Your task to perform on an android device: install app "McDonald's" Image 0: 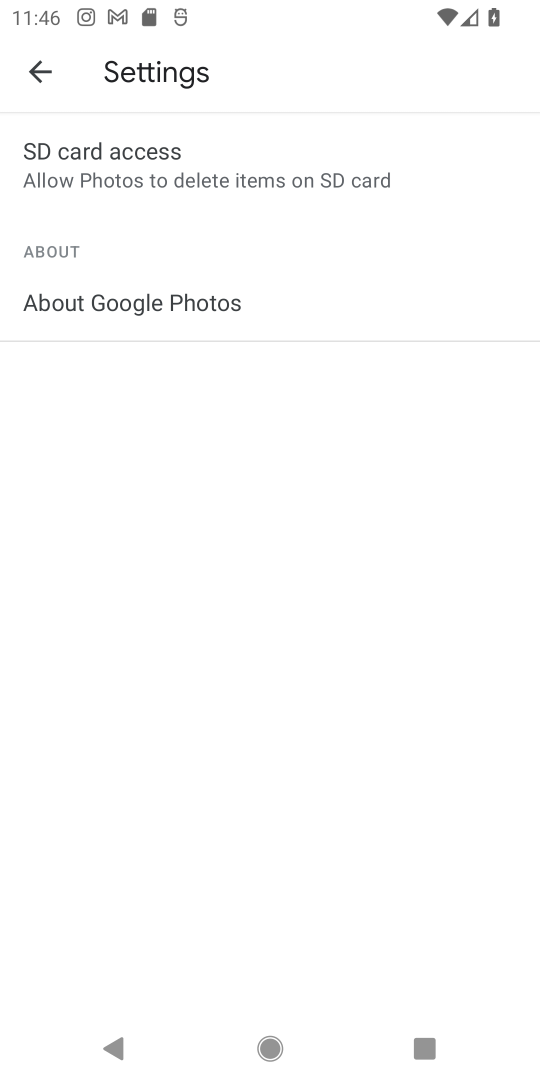
Step 0: press home button
Your task to perform on an android device: install app "McDonald's" Image 1: 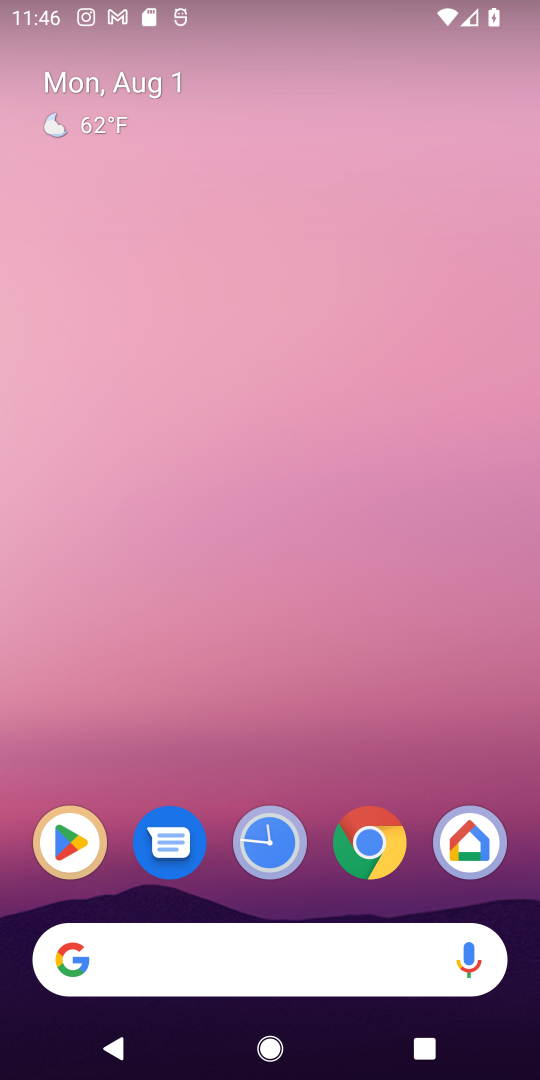
Step 1: click (47, 842)
Your task to perform on an android device: install app "McDonald's" Image 2: 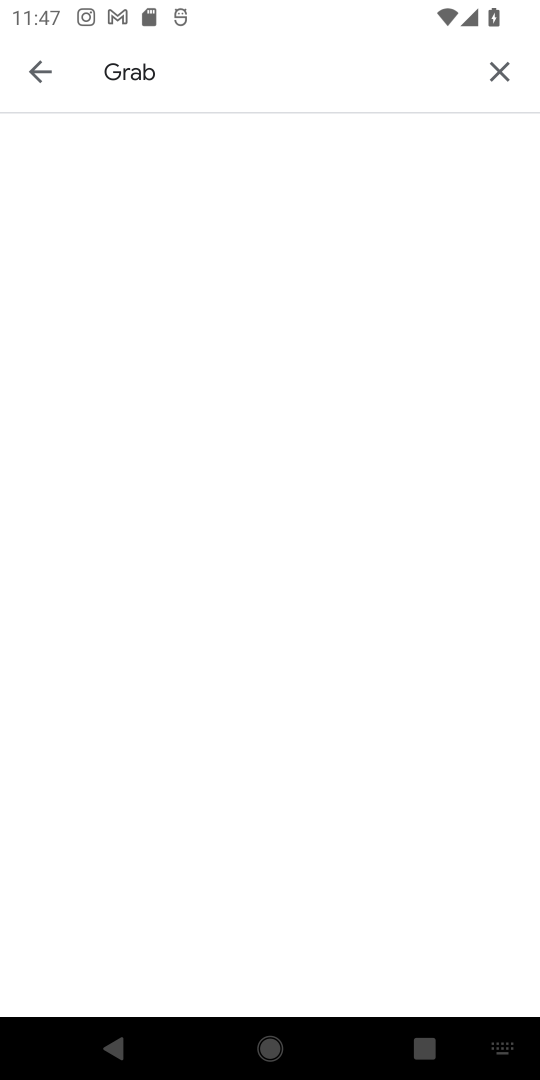
Step 2: click (493, 64)
Your task to perform on an android device: install app "McDonald's" Image 3: 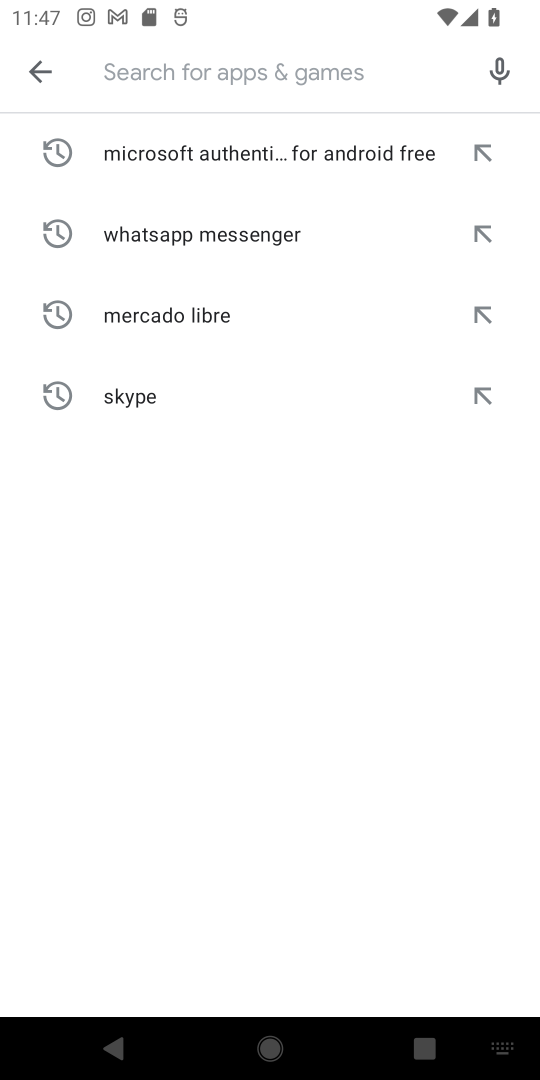
Step 3: click (176, 66)
Your task to perform on an android device: install app "McDonald's" Image 4: 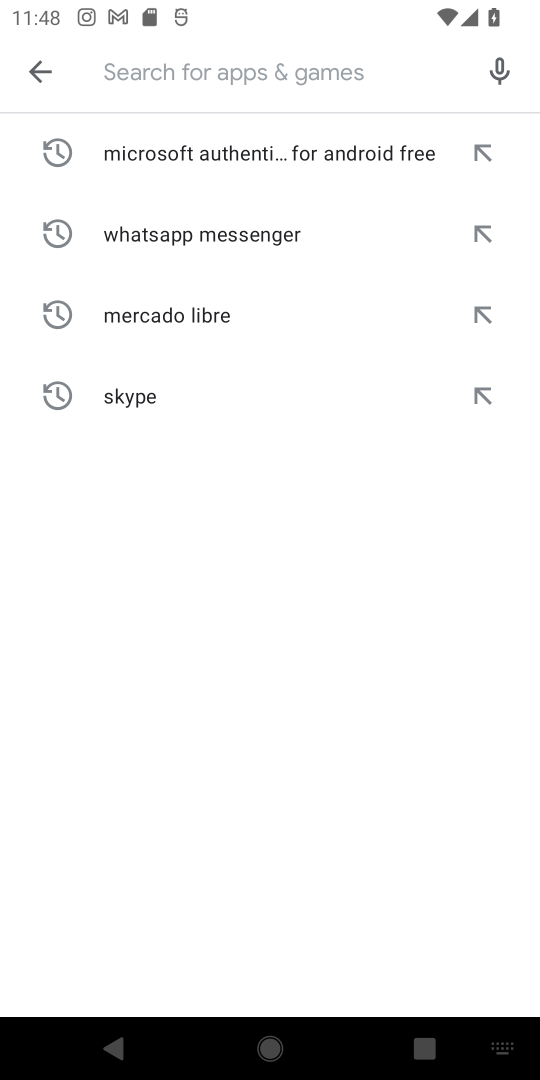
Step 4: type "McDonald's"
Your task to perform on an android device: install app "McDonald's" Image 5: 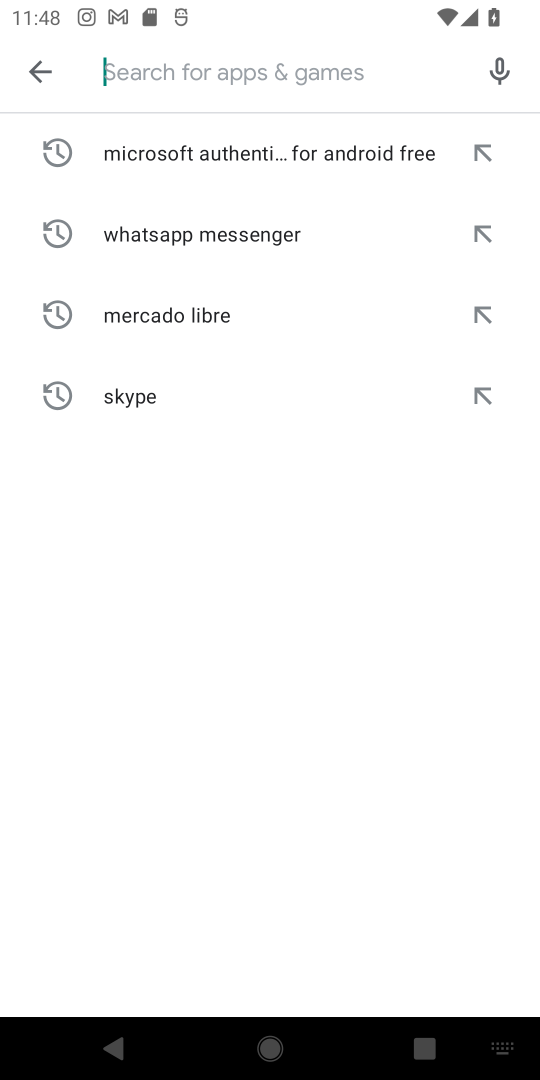
Step 5: click (355, 575)
Your task to perform on an android device: install app "McDonald's" Image 6: 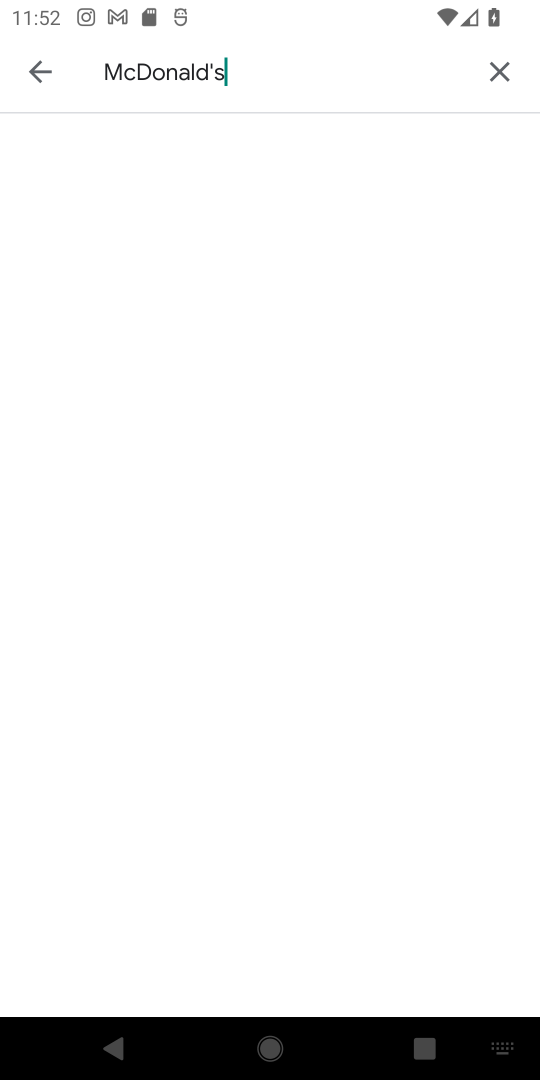
Step 6: task complete